Your task to perform on an android device: Is it going to rain today? Image 0: 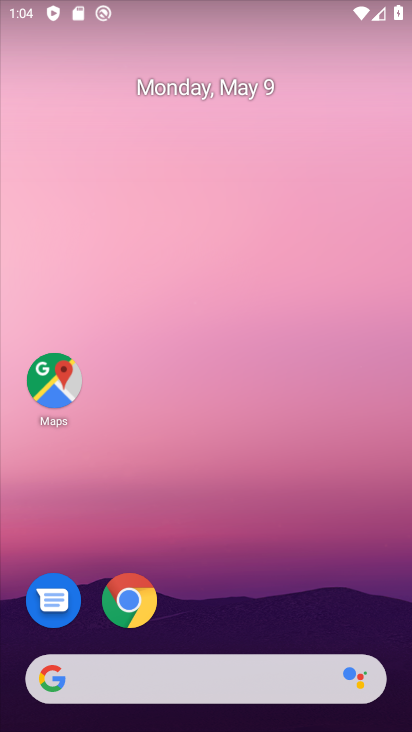
Step 0: click (165, 677)
Your task to perform on an android device: Is it going to rain today? Image 1: 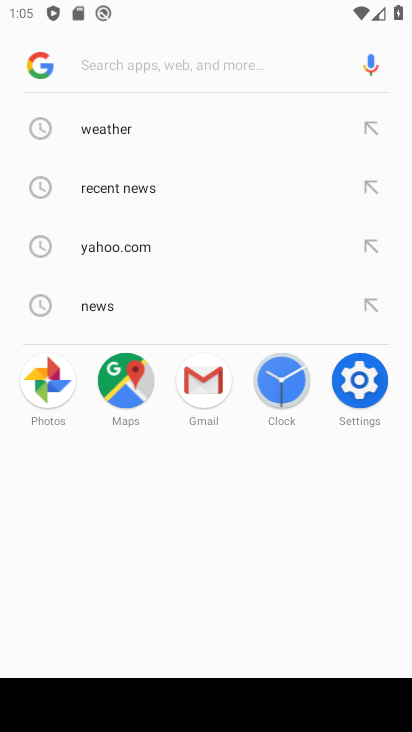
Step 1: click (121, 123)
Your task to perform on an android device: Is it going to rain today? Image 2: 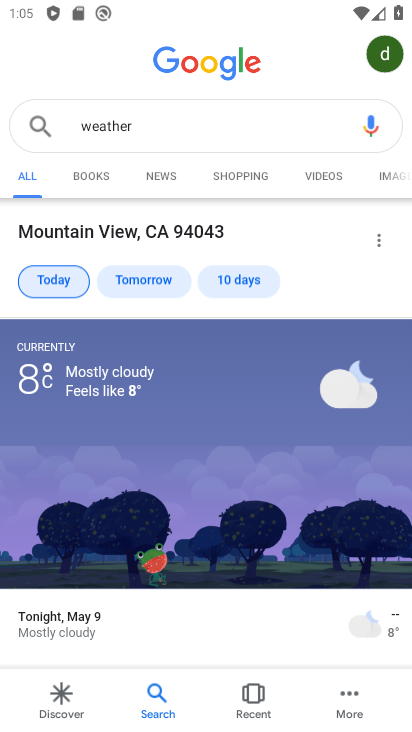
Step 2: task complete